Your task to perform on an android device: change the upload size in google photos Image 0: 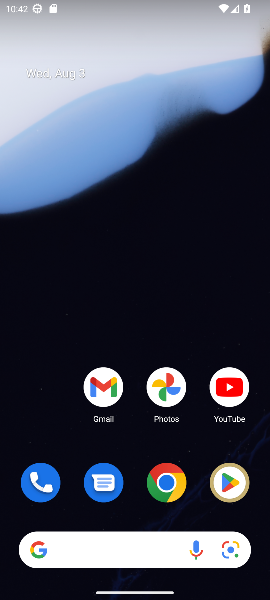
Step 0: click (171, 419)
Your task to perform on an android device: change the upload size in google photos Image 1: 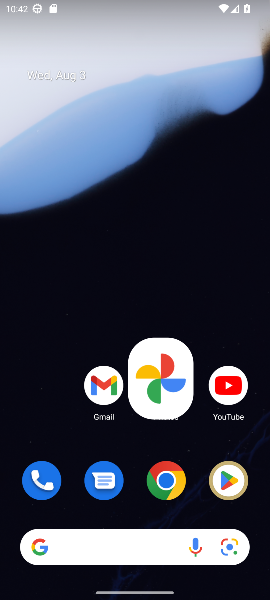
Step 1: task complete